Your task to perform on an android device: What's the news in Puerto Rico? Image 0: 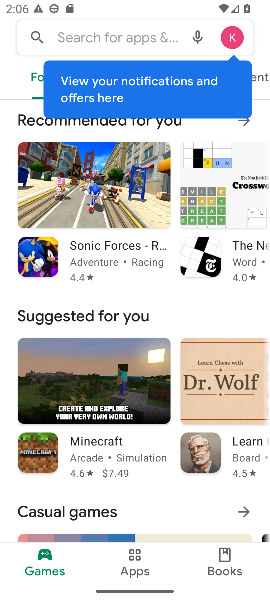
Step 0: press home button
Your task to perform on an android device: What's the news in Puerto Rico? Image 1: 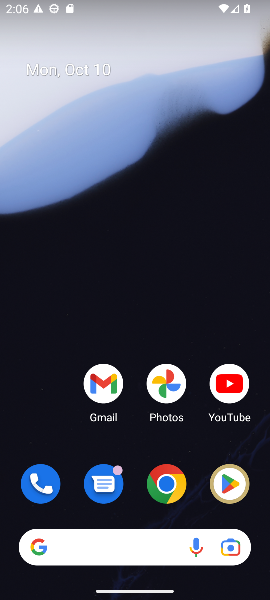
Step 1: click (158, 483)
Your task to perform on an android device: What's the news in Puerto Rico? Image 2: 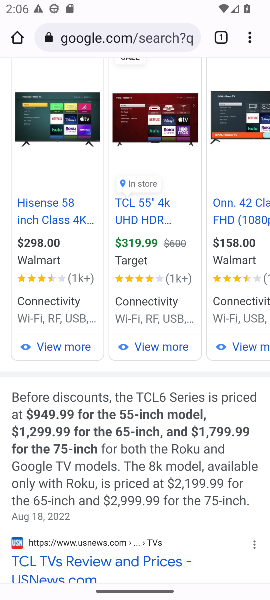
Step 2: click (121, 41)
Your task to perform on an android device: What's the news in Puerto Rico? Image 3: 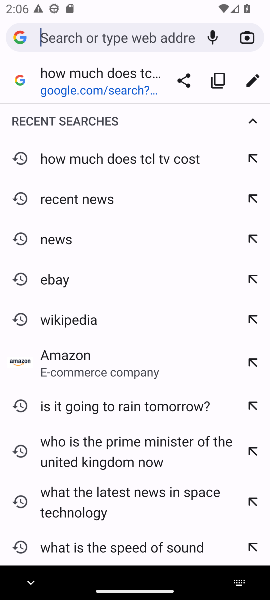
Step 3: type "puerto rico news"
Your task to perform on an android device: What's the news in Puerto Rico? Image 4: 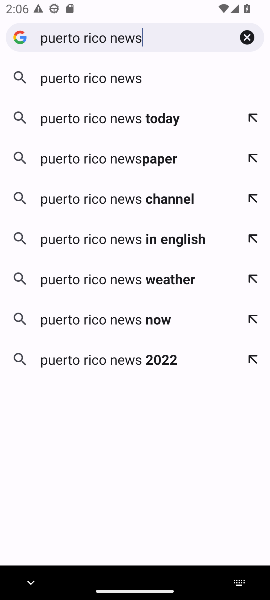
Step 4: click (164, 77)
Your task to perform on an android device: What's the news in Puerto Rico? Image 5: 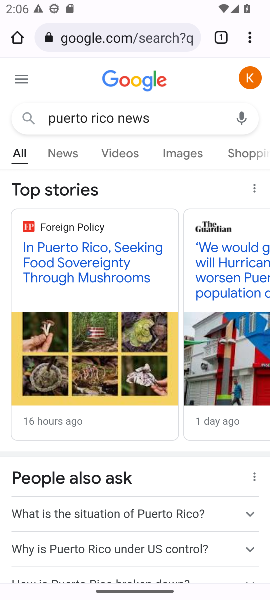
Step 5: drag from (200, 471) to (184, 325)
Your task to perform on an android device: What's the news in Puerto Rico? Image 6: 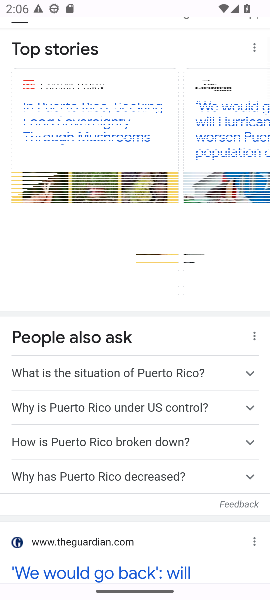
Step 6: drag from (164, 314) to (175, 442)
Your task to perform on an android device: What's the news in Puerto Rico? Image 7: 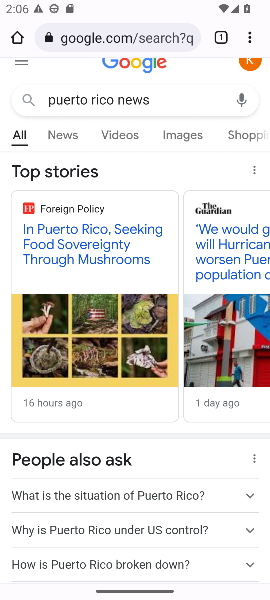
Step 7: drag from (217, 403) to (0, 367)
Your task to perform on an android device: What's the news in Puerto Rico? Image 8: 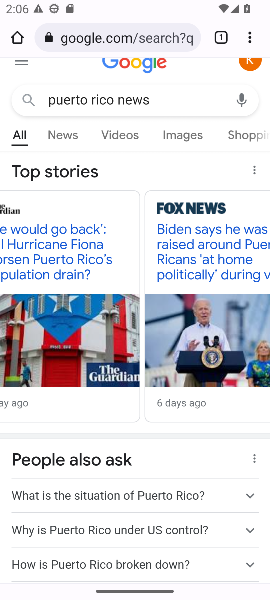
Step 8: click (72, 132)
Your task to perform on an android device: What's the news in Puerto Rico? Image 9: 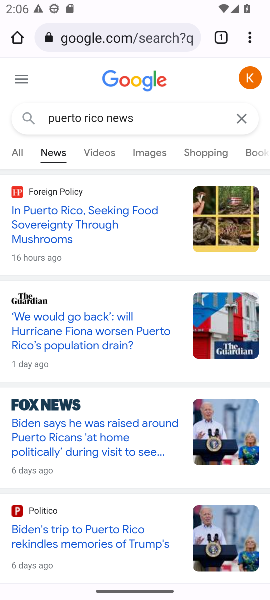
Step 9: task complete